Your task to perform on an android device: create a new album in the google photos Image 0: 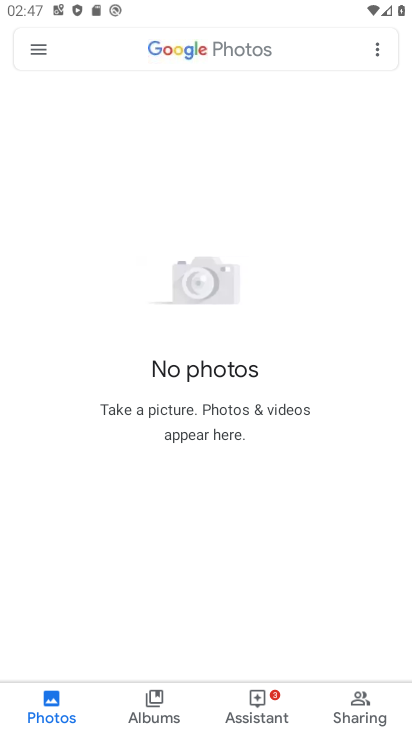
Step 0: press home button
Your task to perform on an android device: create a new album in the google photos Image 1: 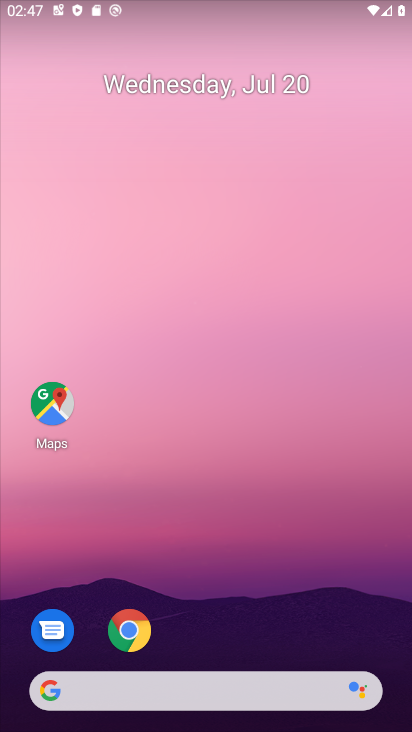
Step 1: drag from (364, 620) to (369, 182)
Your task to perform on an android device: create a new album in the google photos Image 2: 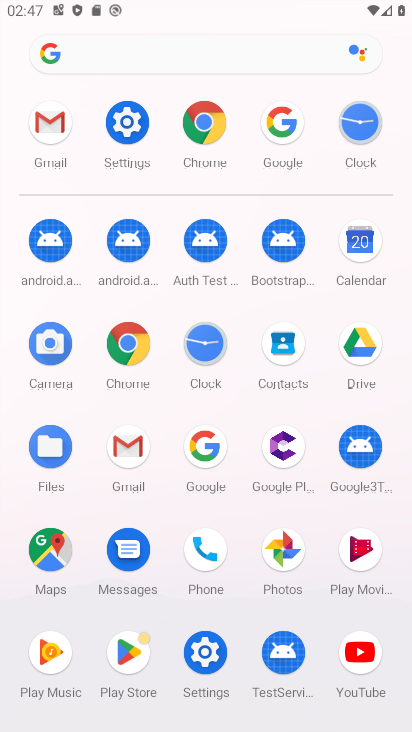
Step 2: click (285, 553)
Your task to perform on an android device: create a new album in the google photos Image 3: 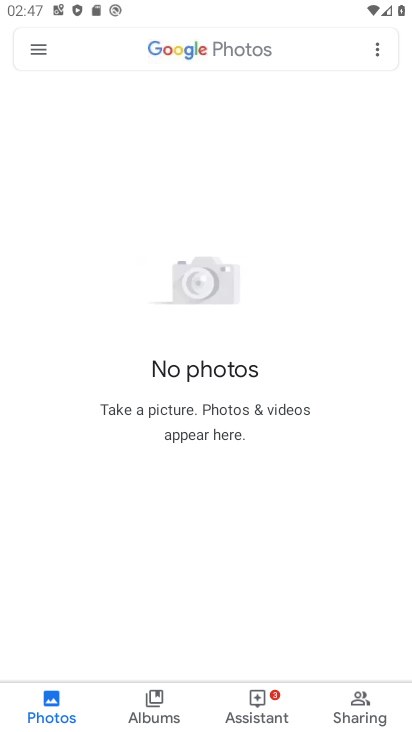
Step 3: click (373, 46)
Your task to perform on an android device: create a new album in the google photos Image 4: 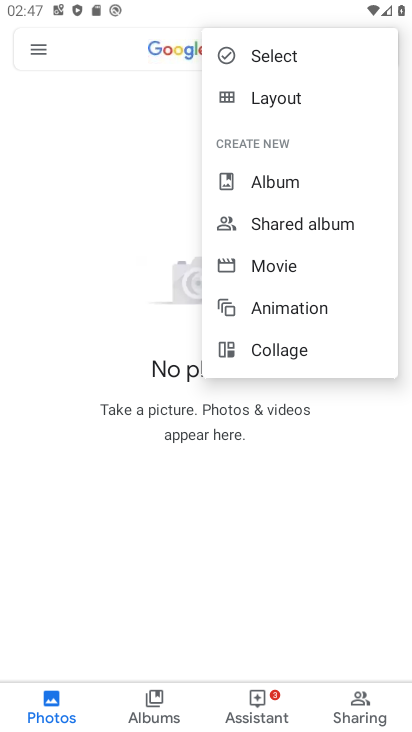
Step 4: click (302, 186)
Your task to perform on an android device: create a new album in the google photos Image 5: 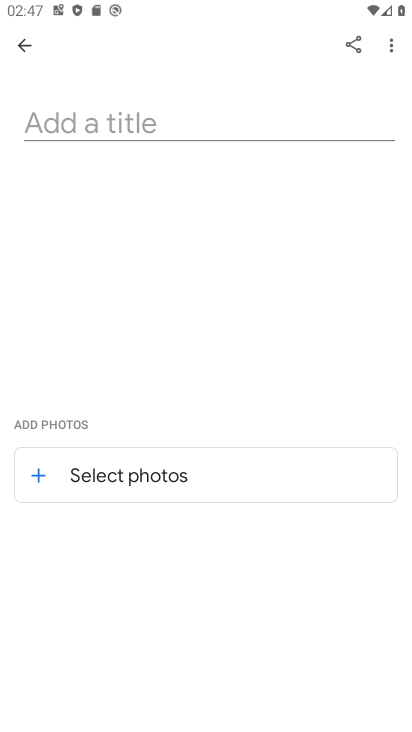
Step 5: click (283, 124)
Your task to perform on an android device: create a new album in the google photos Image 6: 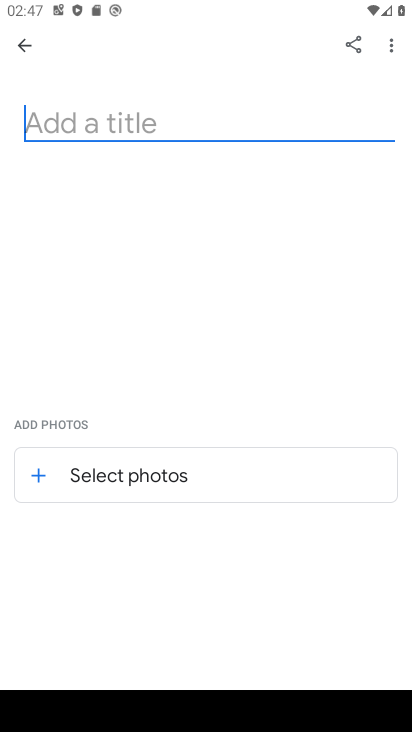
Step 6: type "fav"
Your task to perform on an android device: create a new album in the google photos Image 7: 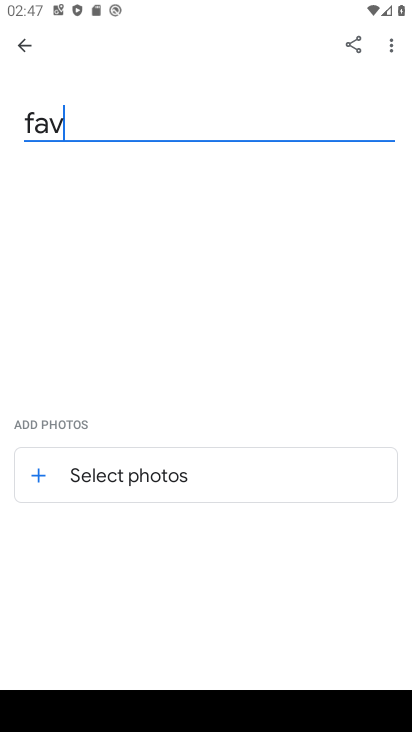
Step 7: click (275, 469)
Your task to perform on an android device: create a new album in the google photos Image 8: 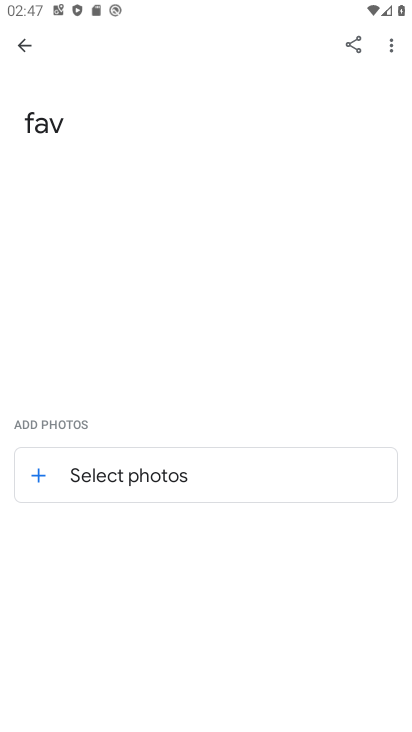
Step 8: click (180, 476)
Your task to perform on an android device: create a new album in the google photos Image 9: 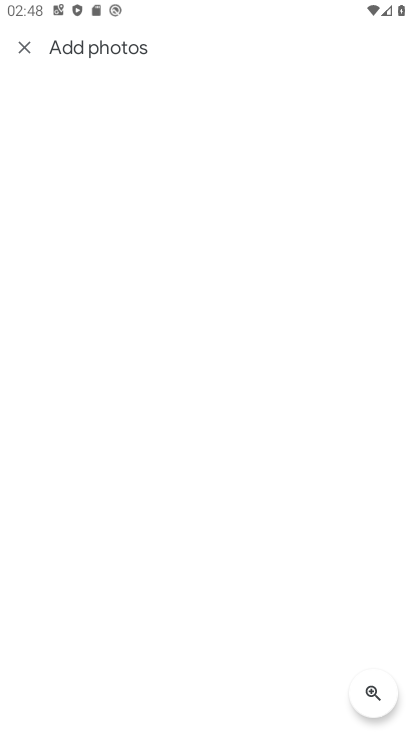
Step 9: task complete